Your task to perform on an android device: add a label to a message in the gmail app Image 0: 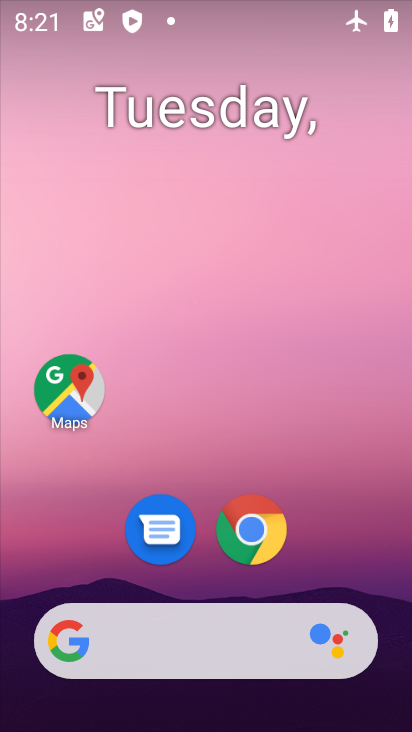
Step 0: drag from (275, 602) to (269, 49)
Your task to perform on an android device: add a label to a message in the gmail app Image 1: 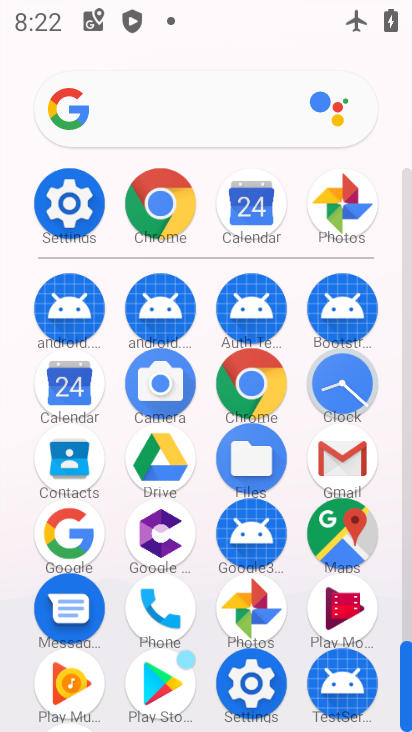
Step 1: click (351, 464)
Your task to perform on an android device: add a label to a message in the gmail app Image 2: 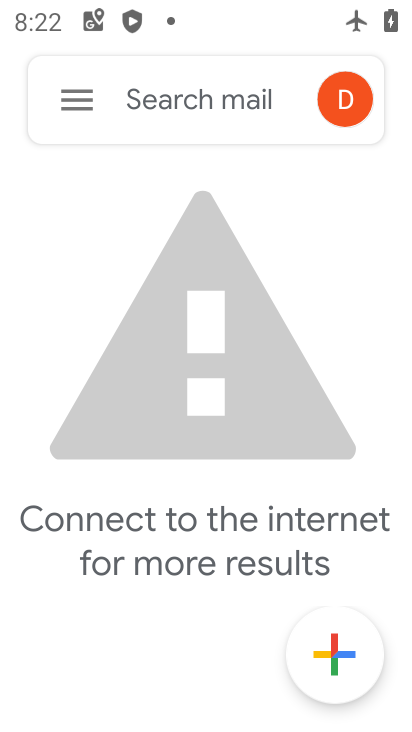
Step 2: click (77, 108)
Your task to perform on an android device: add a label to a message in the gmail app Image 3: 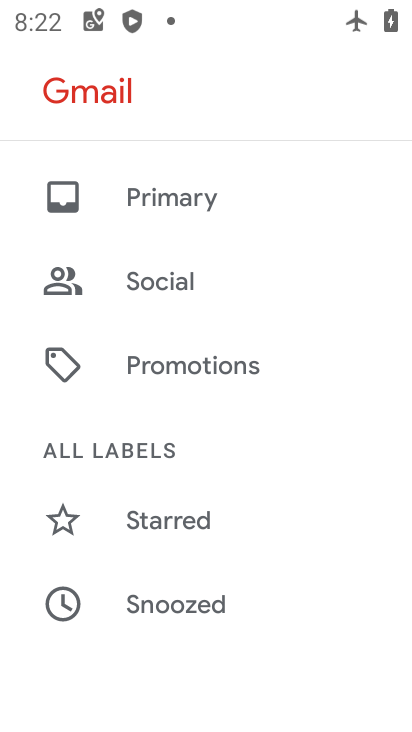
Step 3: drag from (202, 570) to (237, 112)
Your task to perform on an android device: add a label to a message in the gmail app Image 4: 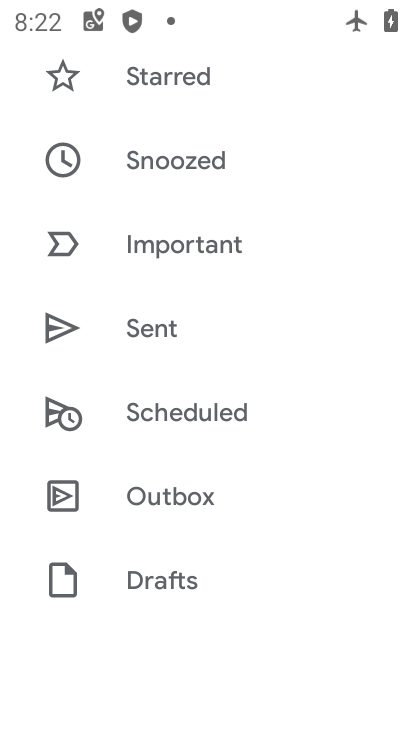
Step 4: drag from (191, 541) to (238, 20)
Your task to perform on an android device: add a label to a message in the gmail app Image 5: 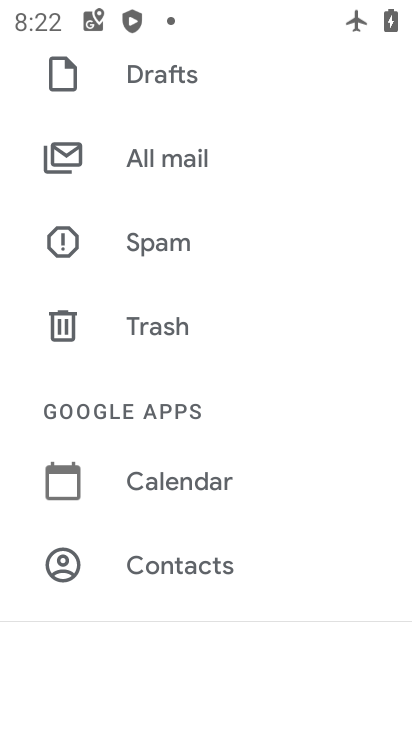
Step 5: click (131, 160)
Your task to perform on an android device: add a label to a message in the gmail app Image 6: 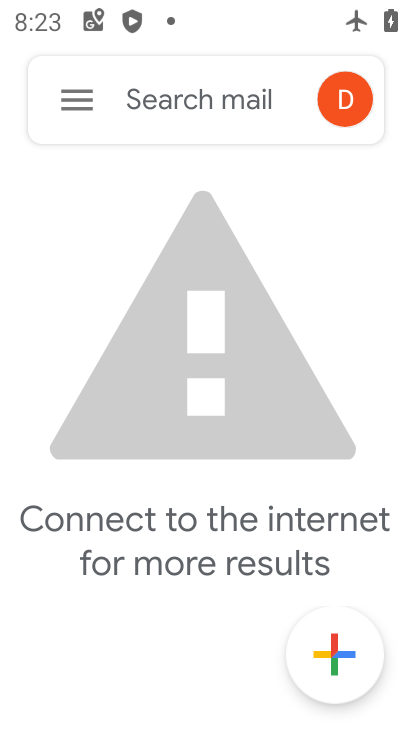
Step 6: task complete